Your task to perform on an android device: Go to wifi settings Image 0: 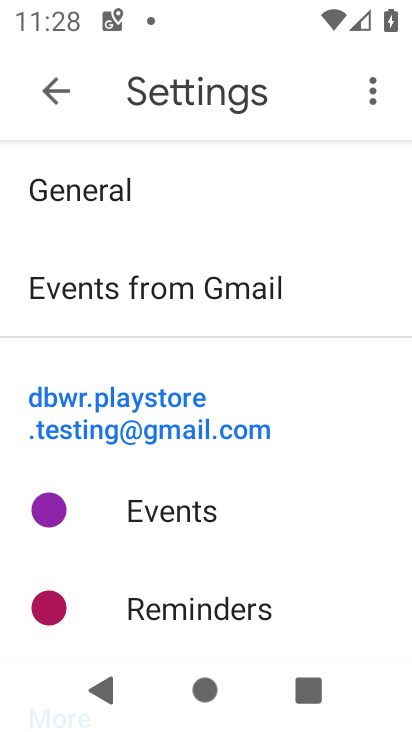
Step 0: press home button
Your task to perform on an android device: Go to wifi settings Image 1: 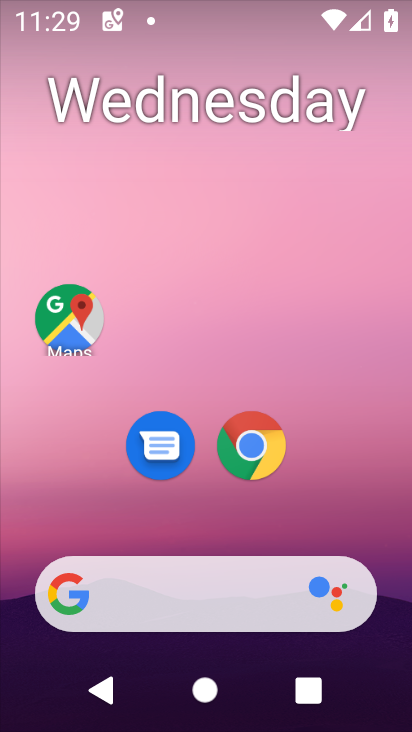
Step 1: drag from (318, 476) to (324, 152)
Your task to perform on an android device: Go to wifi settings Image 2: 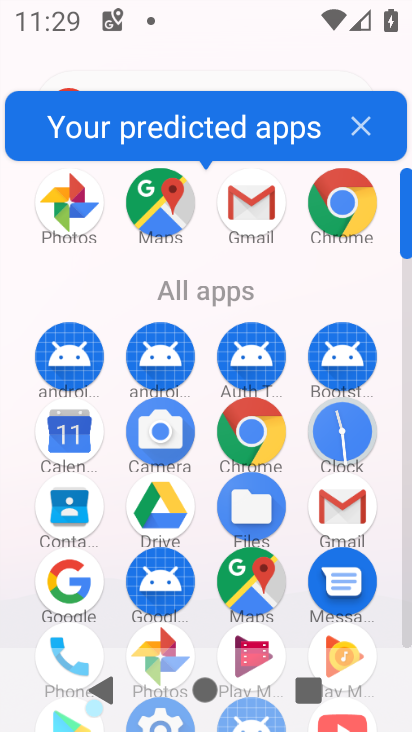
Step 2: drag from (304, 533) to (303, 208)
Your task to perform on an android device: Go to wifi settings Image 3: 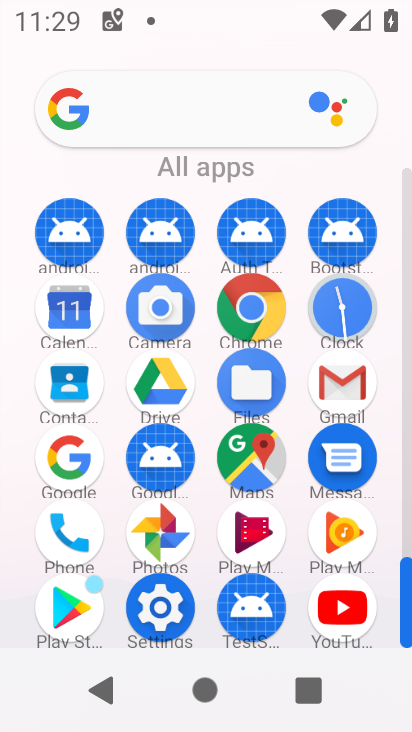
Step 3: click (166, 596)
Your task to perform on an android device: Go to wifi settings Image 4: 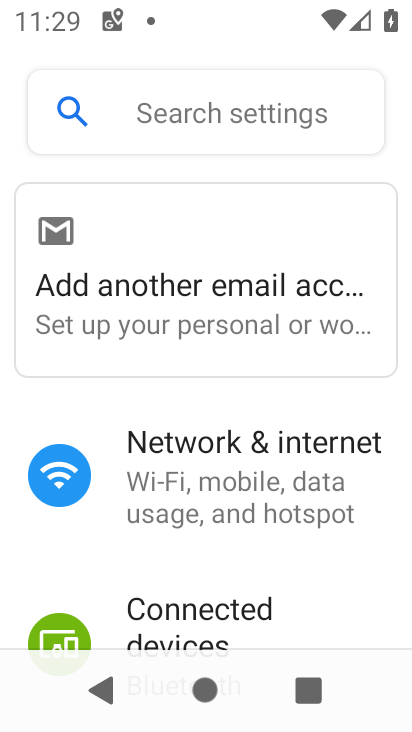
Step 4: click (237, 506)
Your task to perform on an android device: Go to wifi settings Image 5: 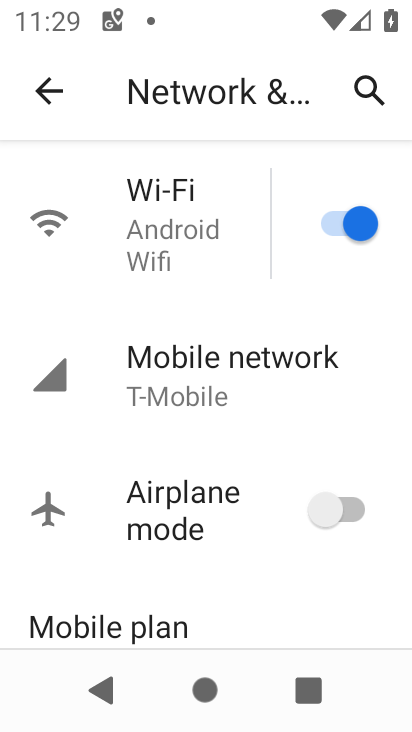
Step 5: click (166, 193)
Your task to perform on an android device: Go to wifi settings Image 6: 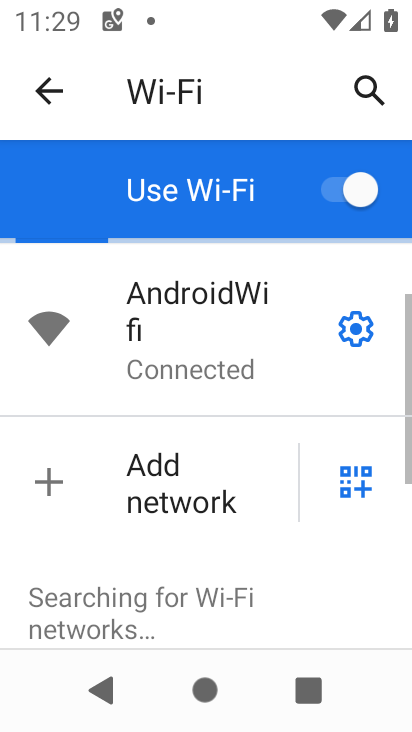
Step 6: task complete